Your task to perform on an android device: Show me popular videos on Youtube Image 0: 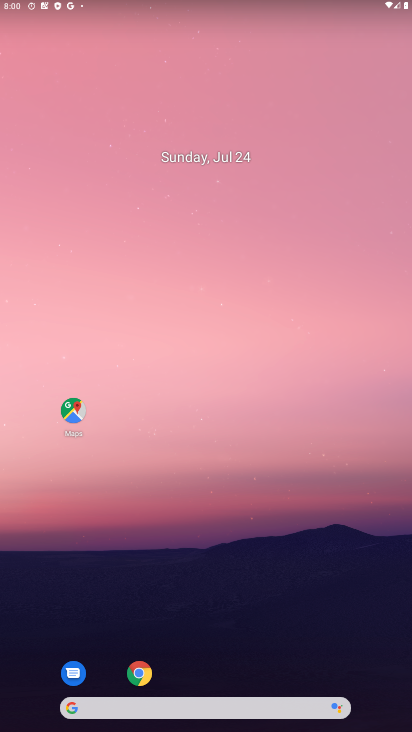
Step 0: drag from (14, 678) to (196, 192)
Your task to perform on an android device: Show me popular videos on Youtube Image 1: 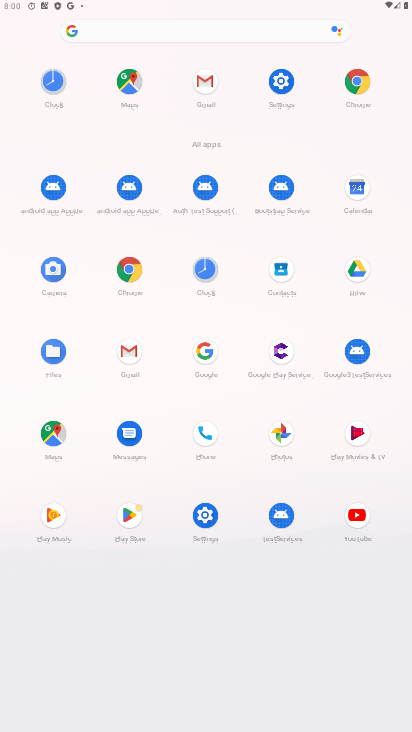
Step 1: click (356, 514)
Your task to perform on an android device: Show me popular videos on Youtube Image 2: 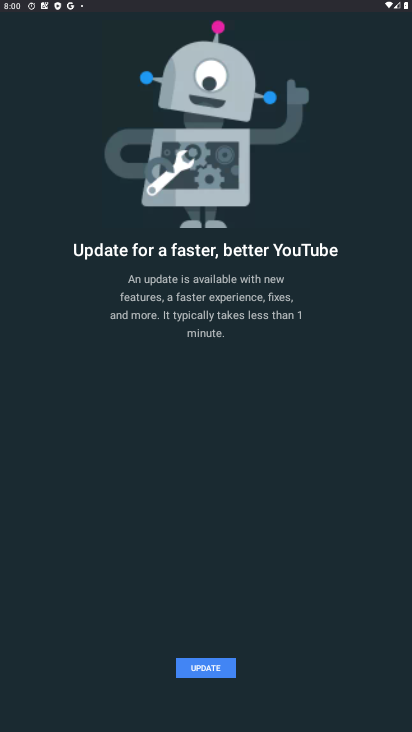
Step 2: click (209, 662)
Your task to perform on an android device: Show me popular videos on Youtube Image 3: 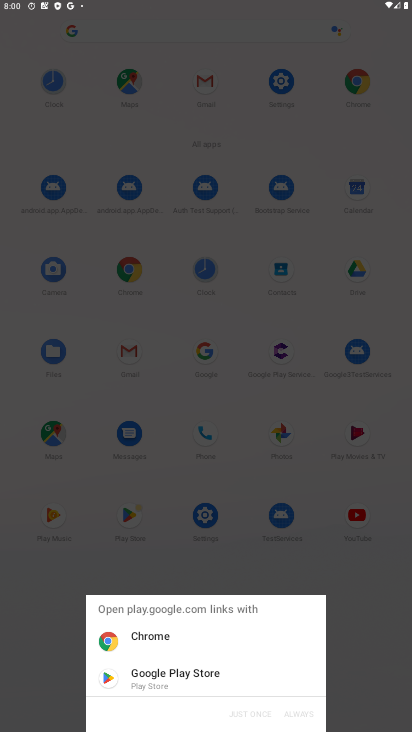
Step 3: click (140, 677)
Your task to perform on an android device: Show me popular videos on Youtube Image 4: 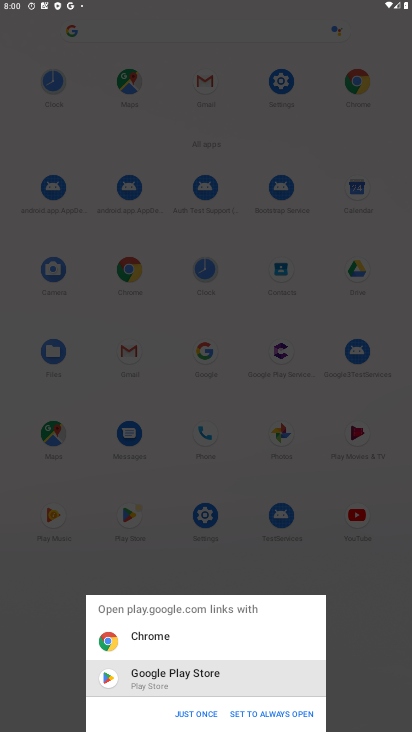
Step 4: click (204, 712)
Your task to perform on an android device: Show me popular videos on Youtube Image 5: 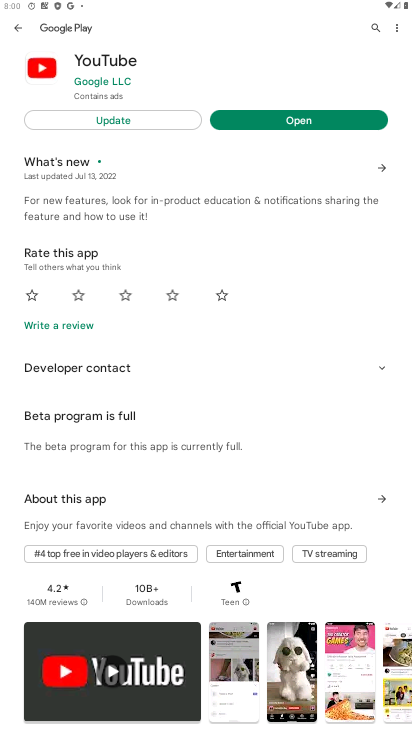
Step 5: click (267, 120)
Your task to perform on an android device: Show me popular videos on Youtube Image 6: 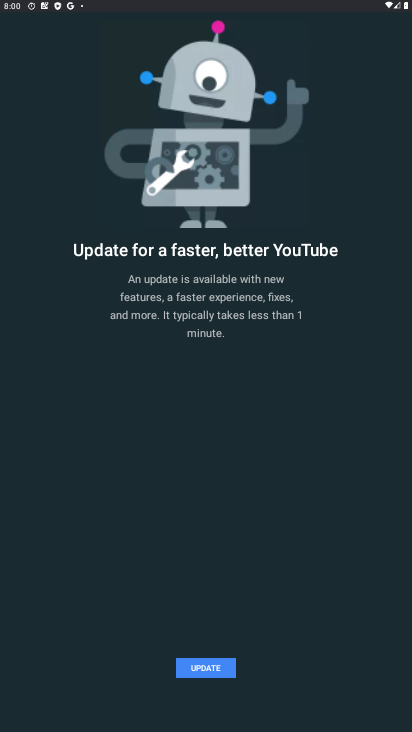
Step 6: task complete